Your task to perform on an android device: Open my contact list Image 0: 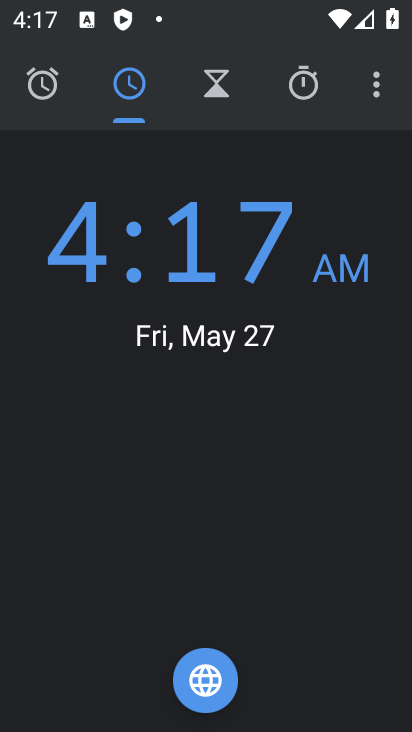
Step 0: press home button
Your task to perform on an android device: Open my contact list Image 1: 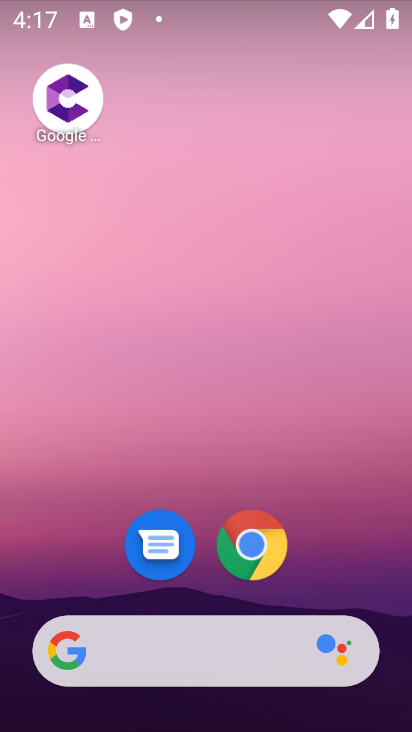
Step 1: drag from (135, 433) to (369, 460)
Your task to perform on an android device: Open my contact list Image 2: 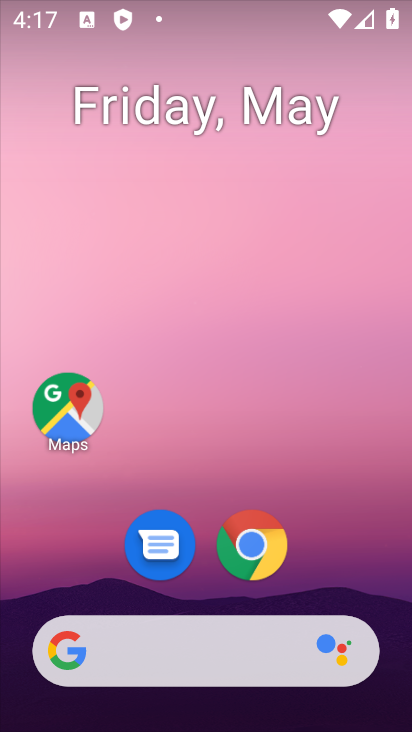
Step 2: drag from (318, 549) to (281, 172)
Your task to perform on an android device: Open my contact list Image 3: 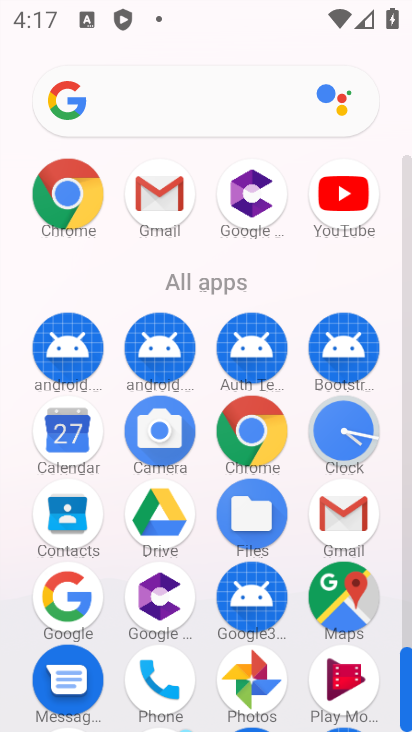
Step 3: drag from (267, 543) to (220, 196)
Your task to perform on an android device: Open my contact list Image 4: 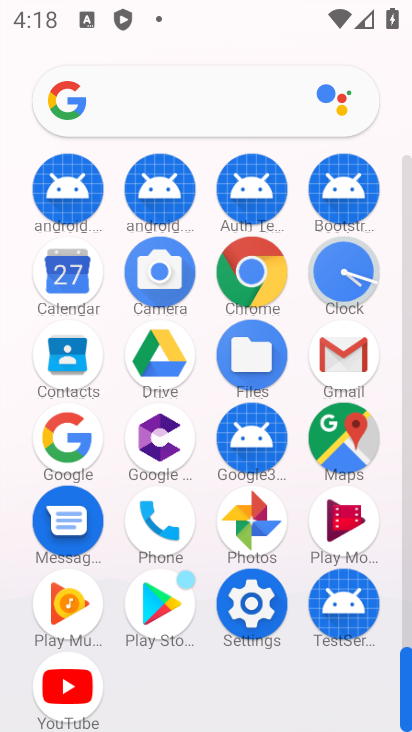
Step 4: click (50, 347)
Your task to perform on an android device: Open my contact list Image 5: 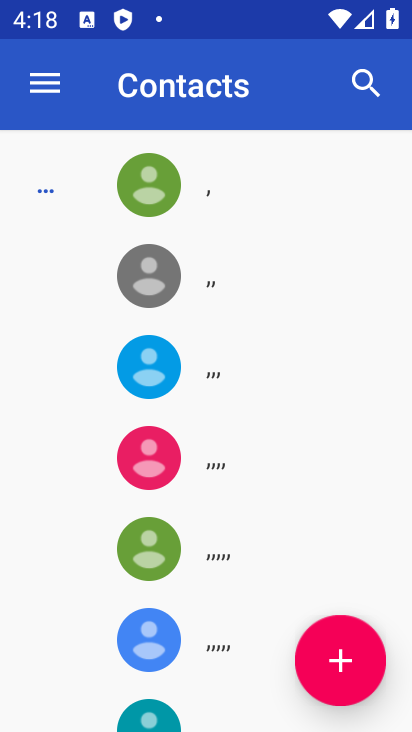
Step 5: task complete